Your task to perform on an android device: Find the nearest electronics store that's open tomorrow Image 0: 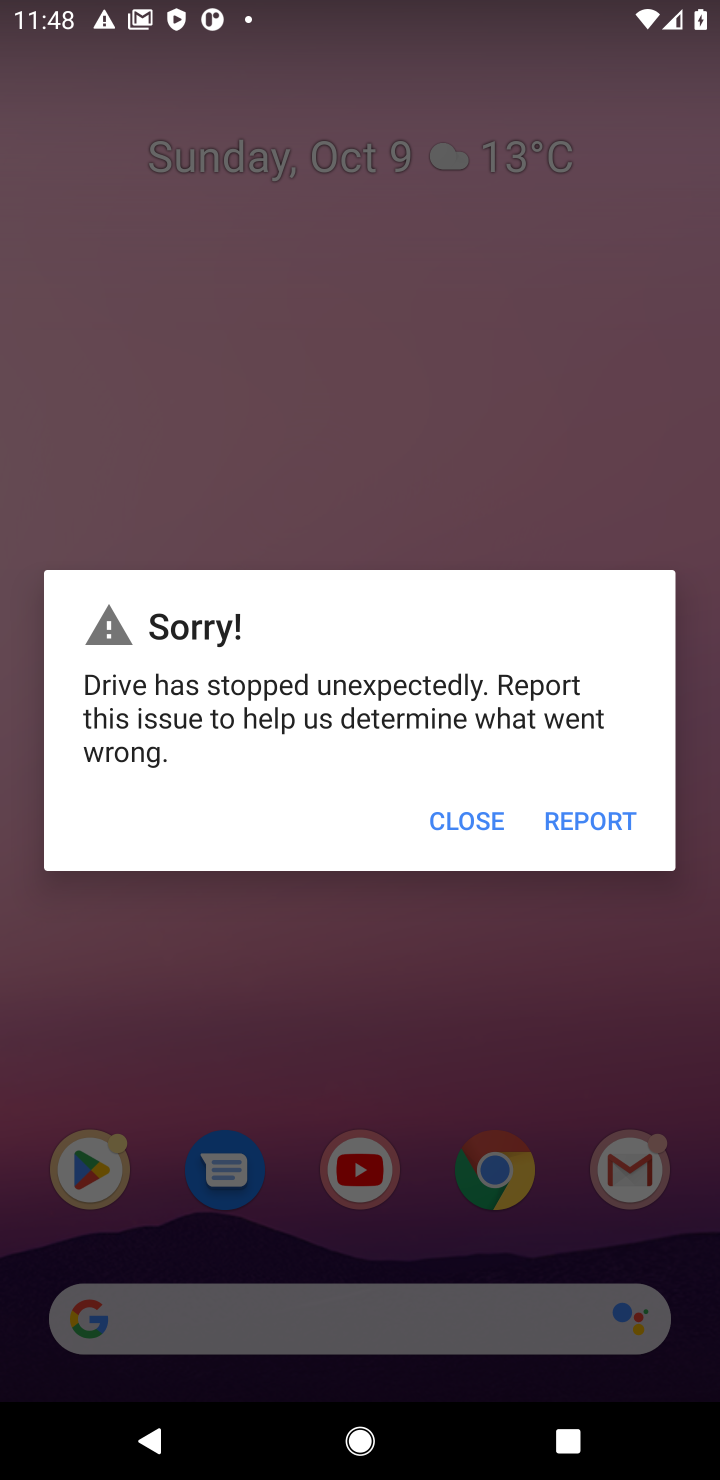
Step 0: press home button
Your task to perform on an android device: Find the nearest electronics store that's open tomorrow Image 1: 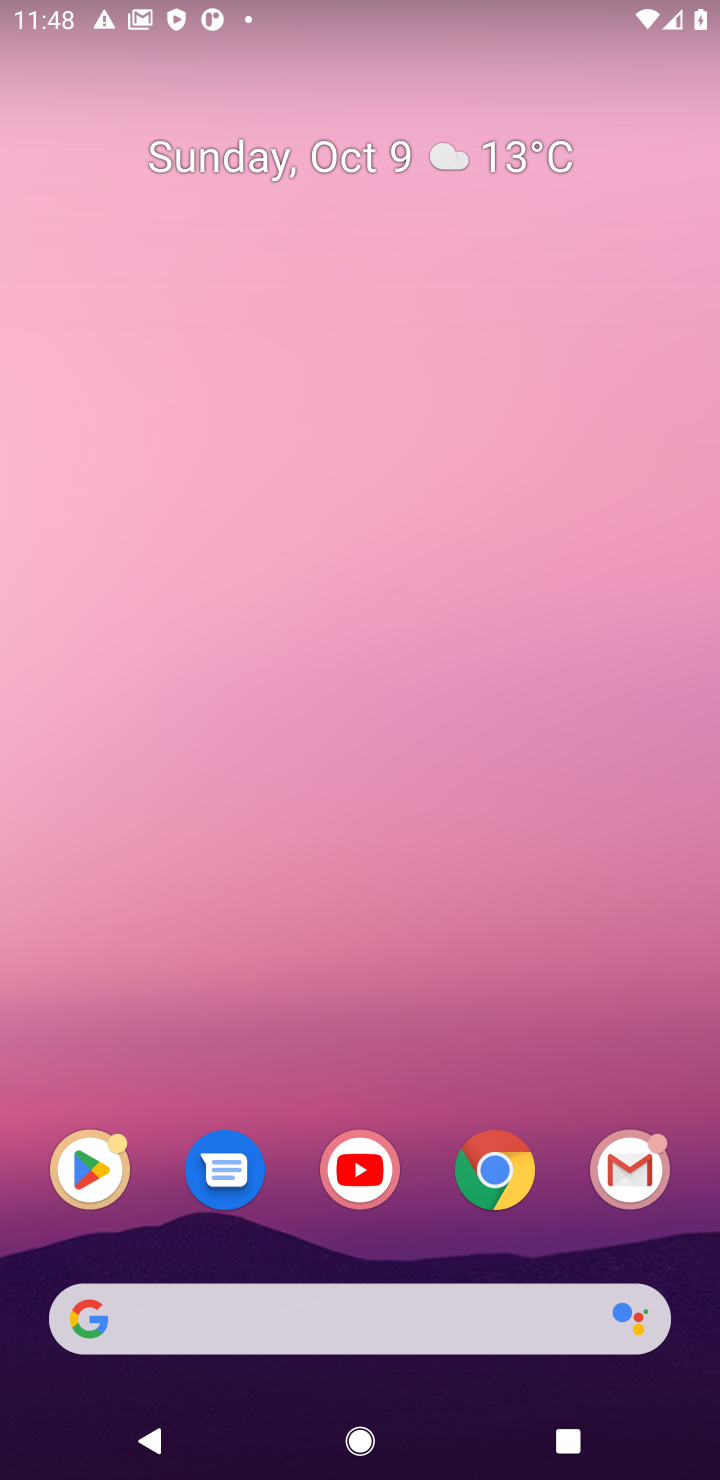
Step 1: click (497, 1175)
Your task to perform on an android device: Find the nearest electronics store that's open tomorrow Image 2: 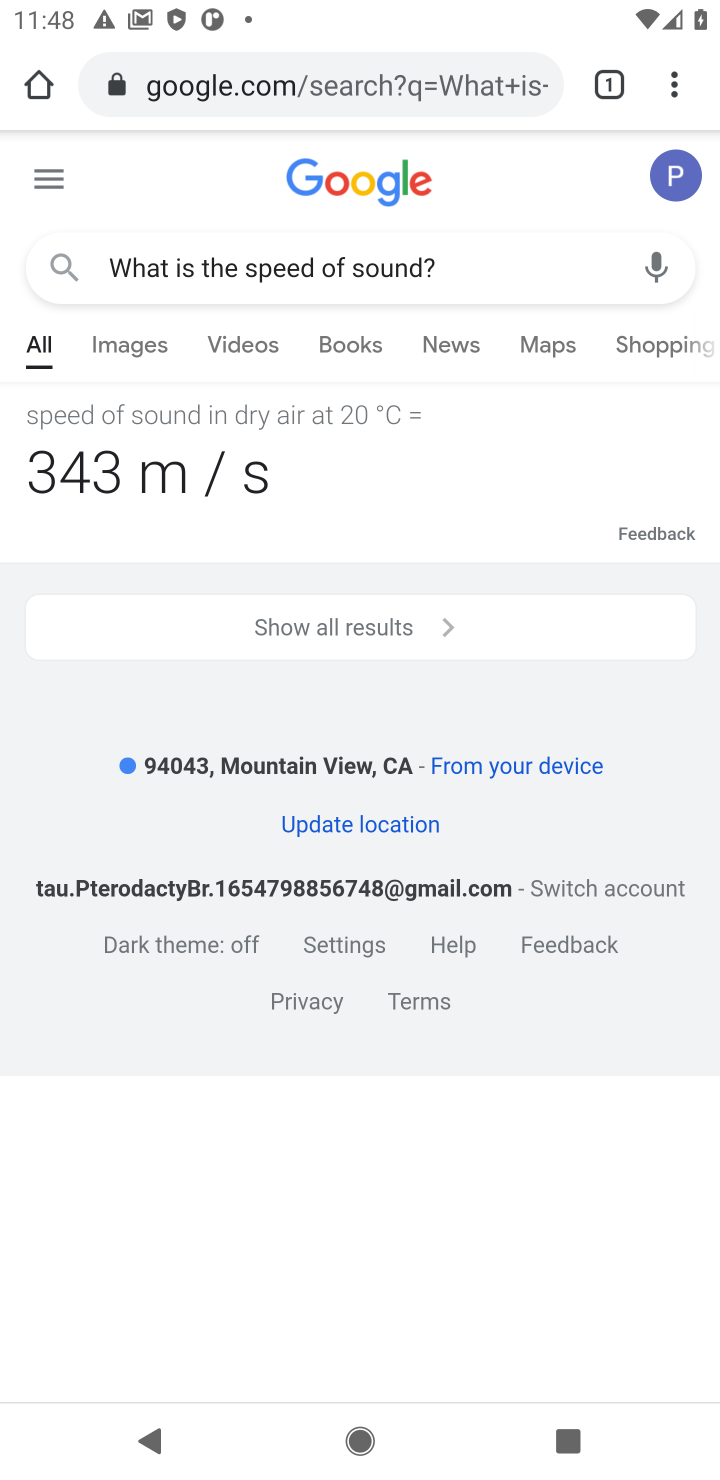
Step 2: click (501, 101)
Your task to perform on an android device: Find the nearest electronics store that's open tomorrow Image 3: 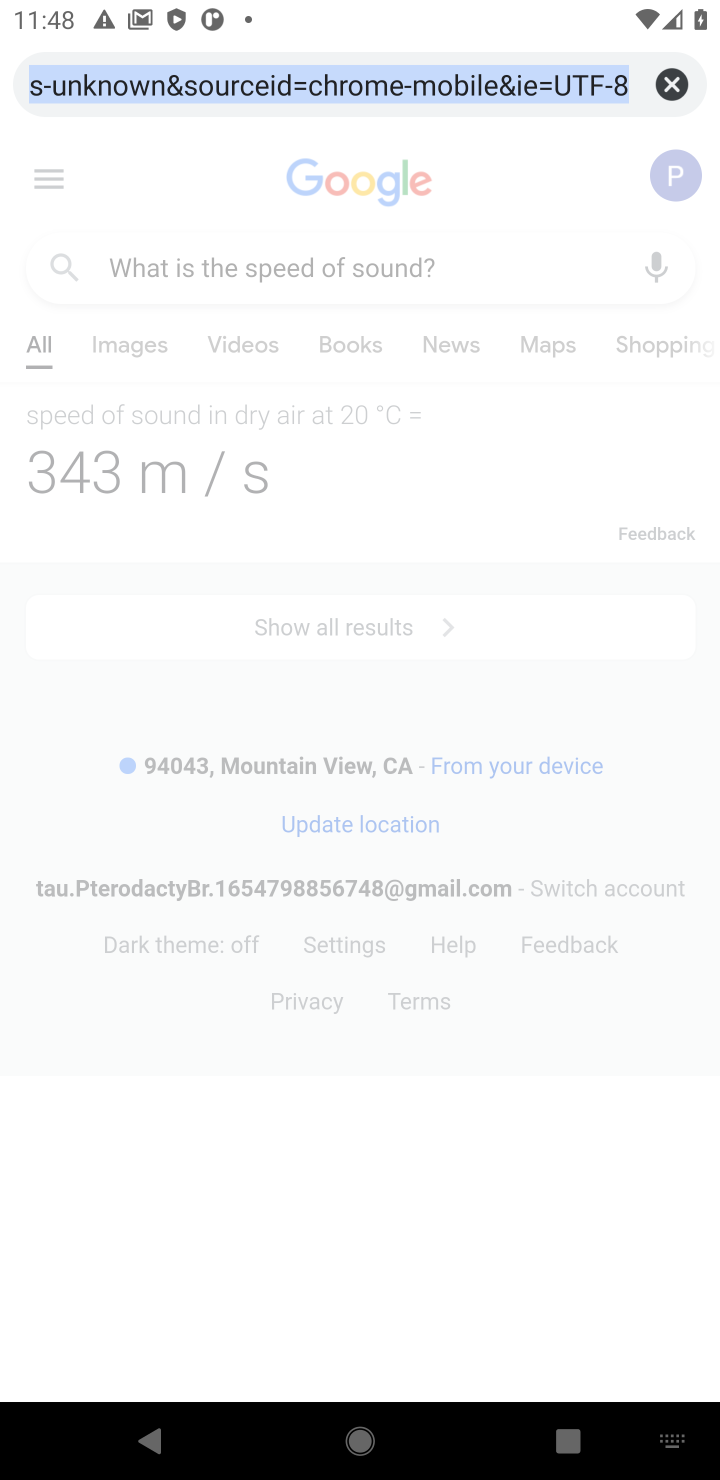
Step 3: click (574, 86)
Your task to perform on an android device: Find the nearest electronics store that's open tomorrow Image 4: 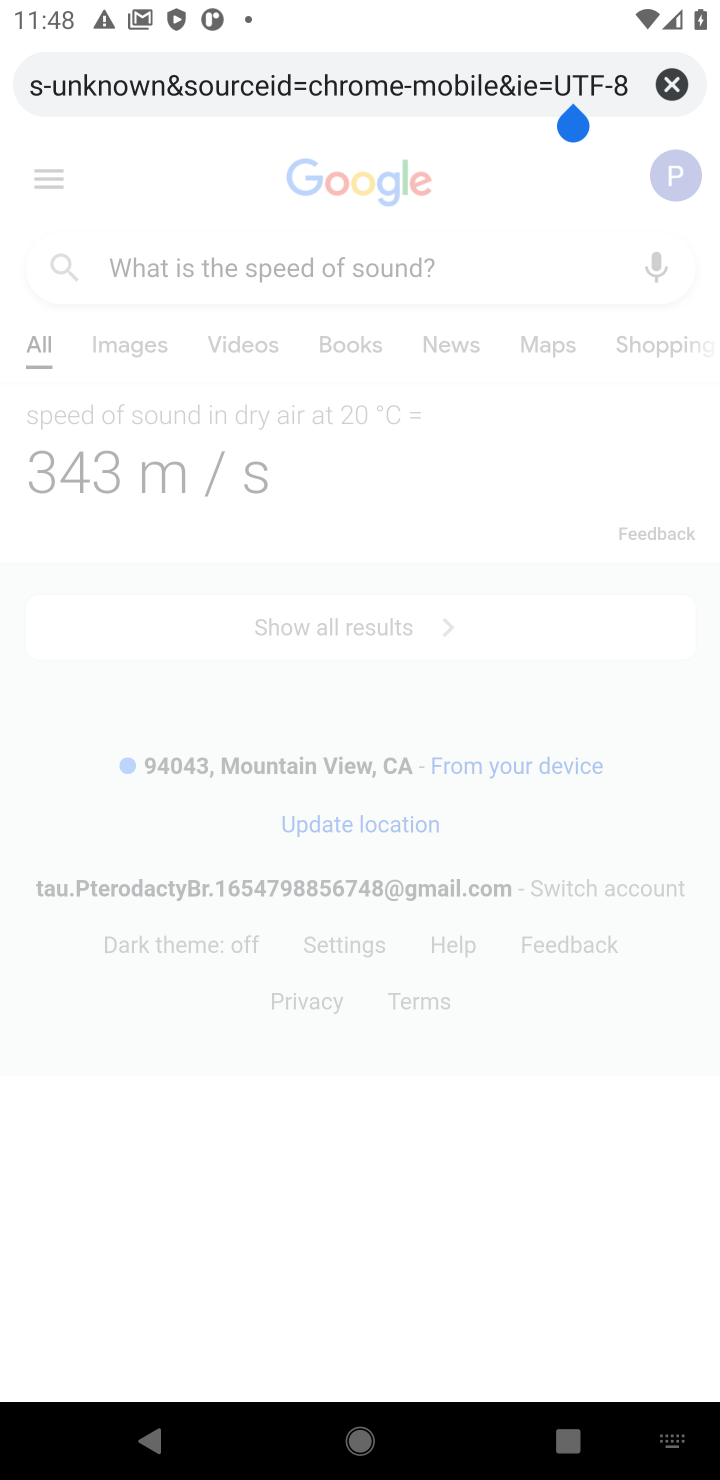
Step 4: click (664, 79)
Your task to perform on an android device: Find the nearest electronics store that's open tomorrow Image 5: 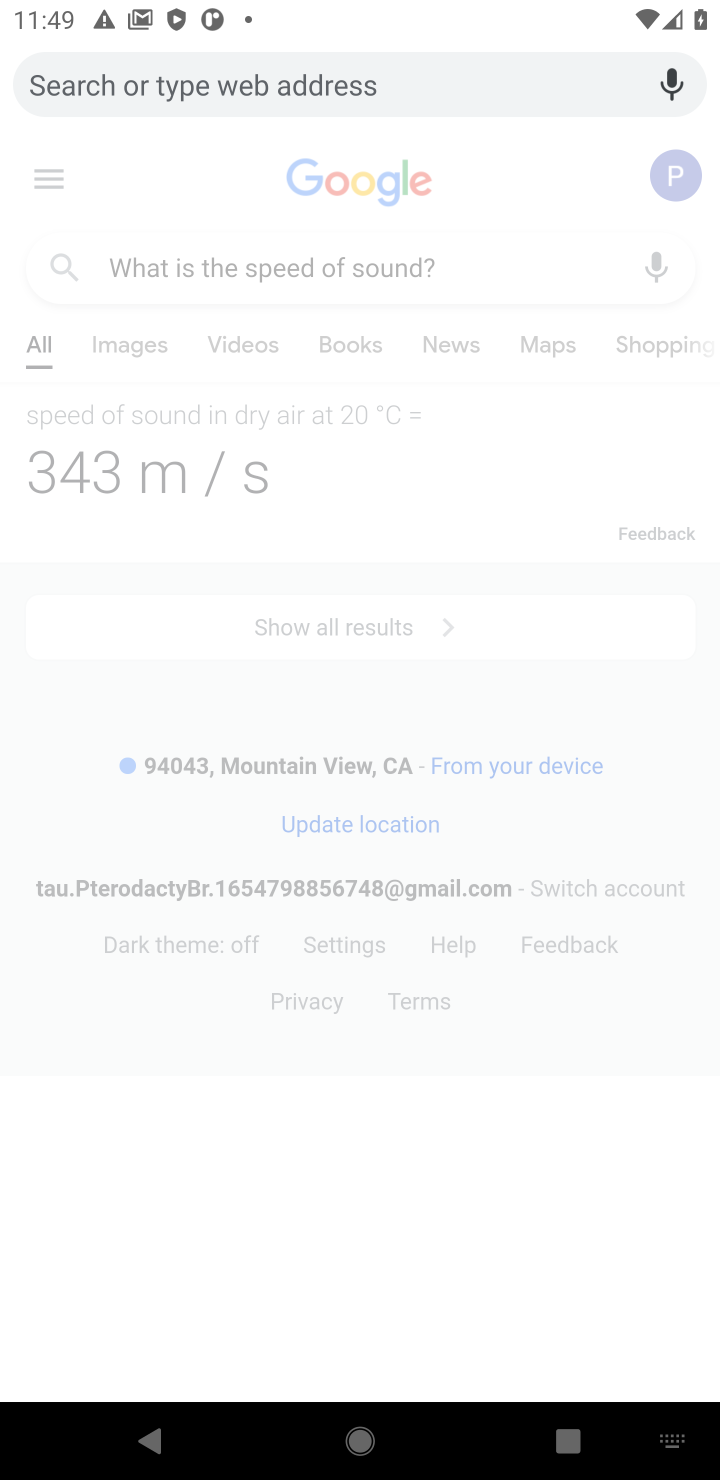
Step 5: type "nearest electronics store that's open tomorrow"
Your task to perform on an android device: Find the nearest electronics store that's open tomorrow Image 6: 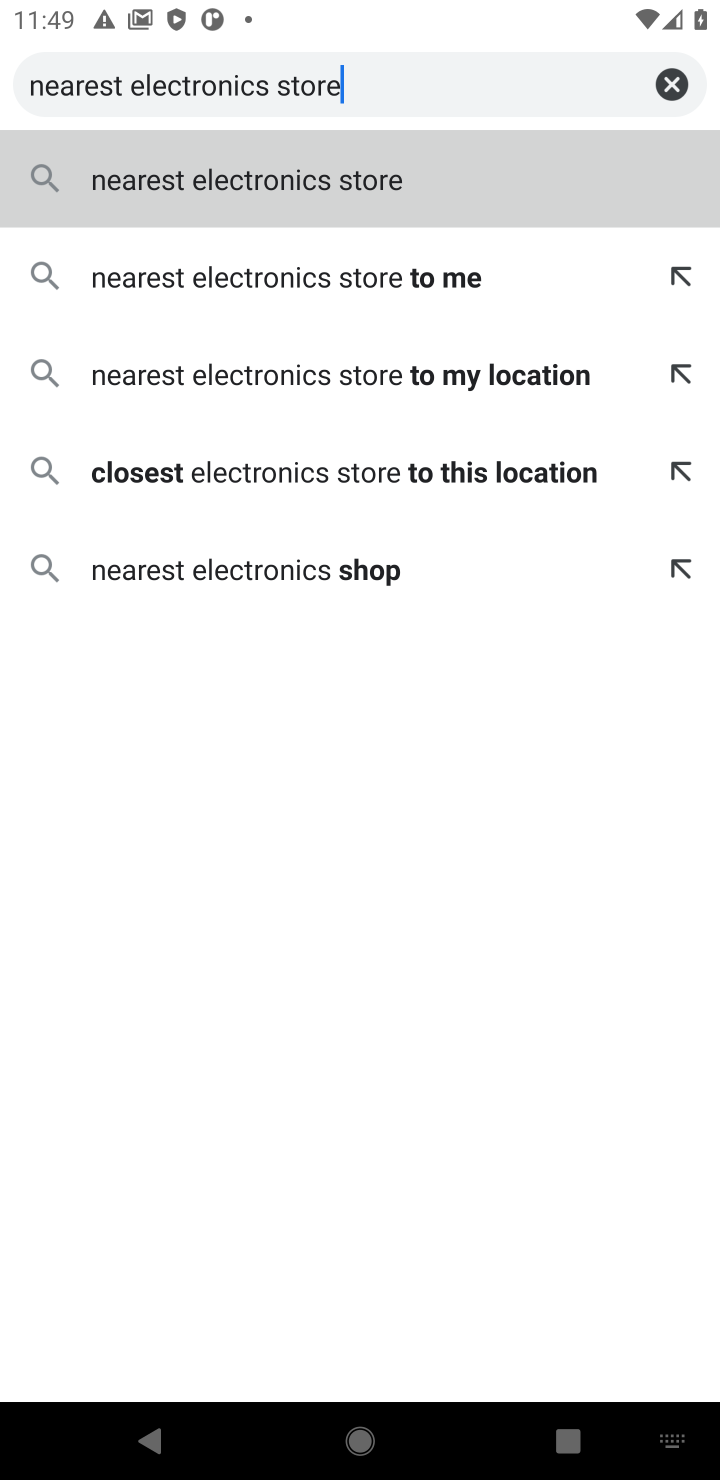
Step 6: type " tomorrow"
Your task to perform on an android device: Find the nearest electronics store that's open tomorrow Image 7: 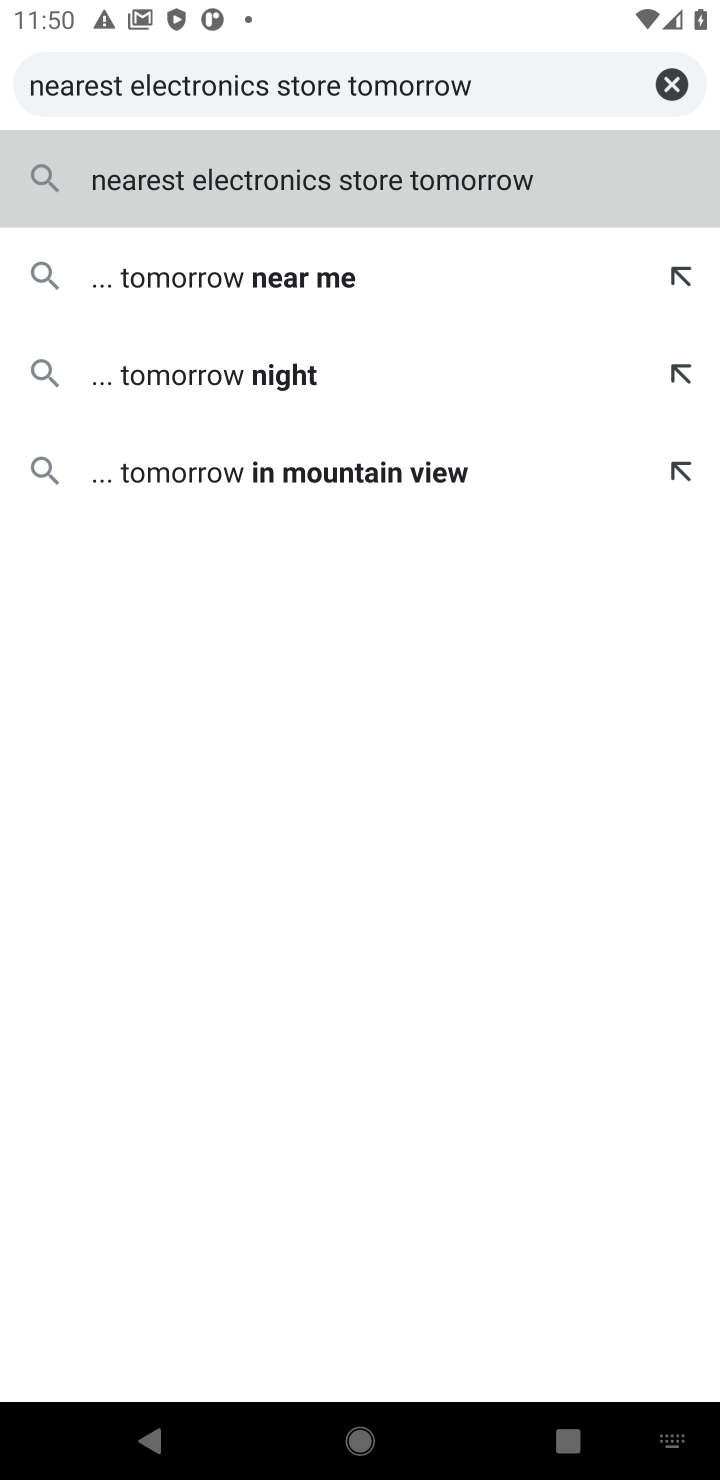
Step 7: click (352, 183)
Your task to perform on an android device: Find the nearest electronics store that's open tomorrow Image 8: 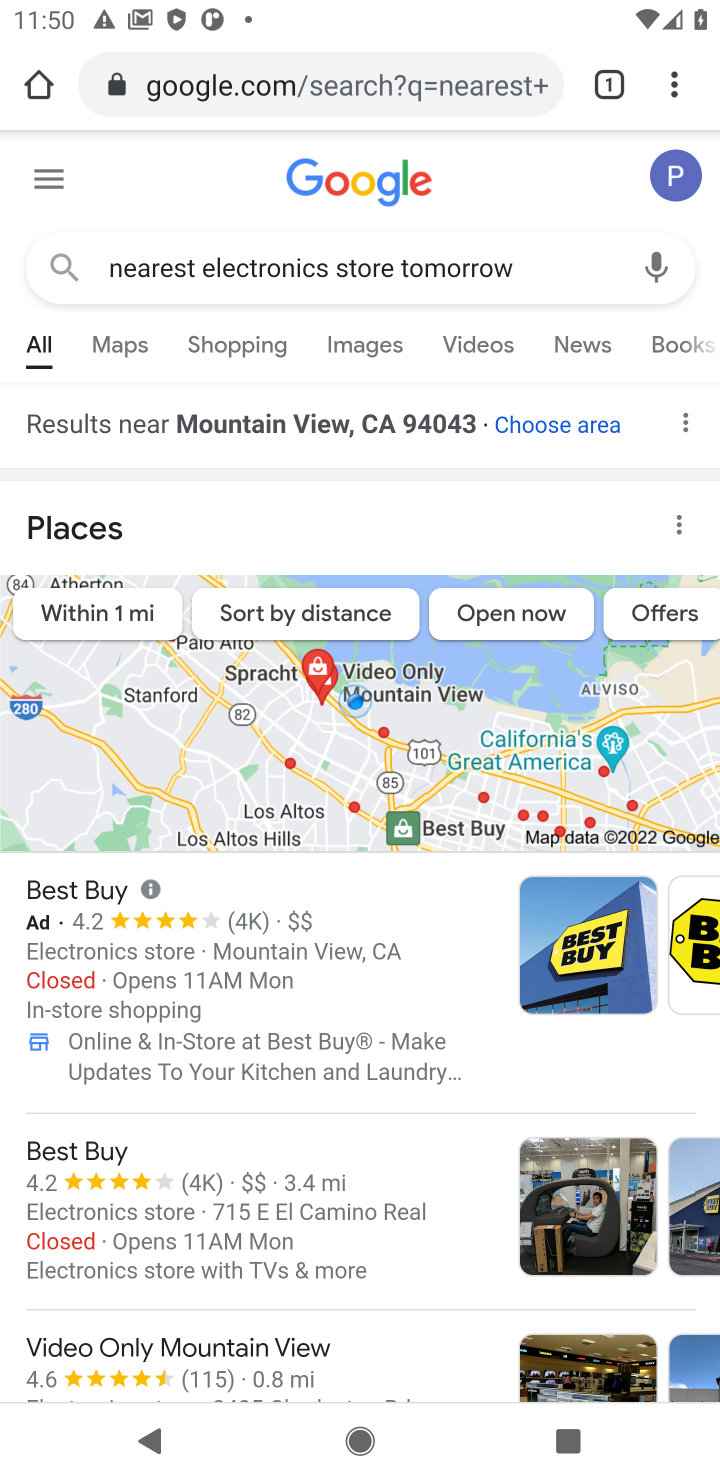
Step 8: click (556, 627)
Your task to perform on an android device: Find the nearest electronics store that's open tomorrow Image 9: 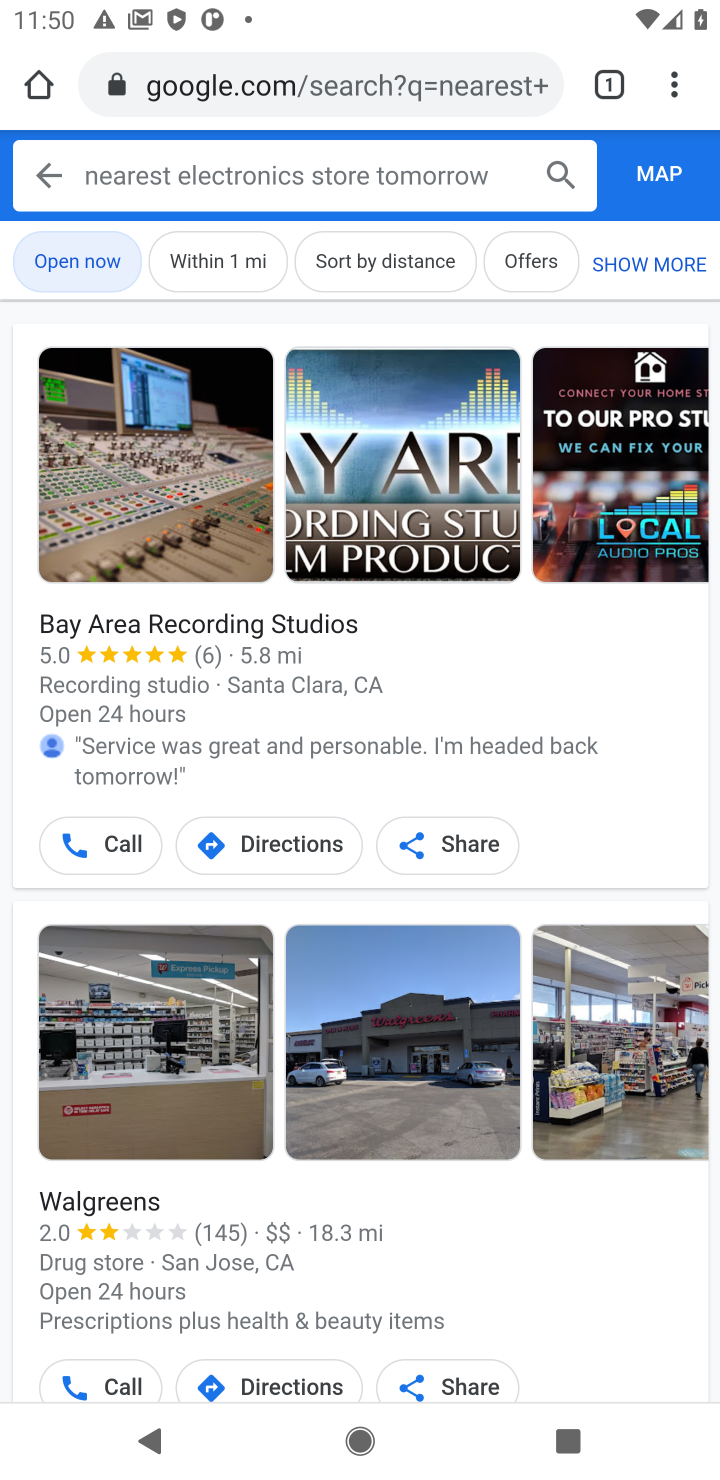
Step 9: task complete